Your task to perform on an android device: star an email in the gmail app Image 0: 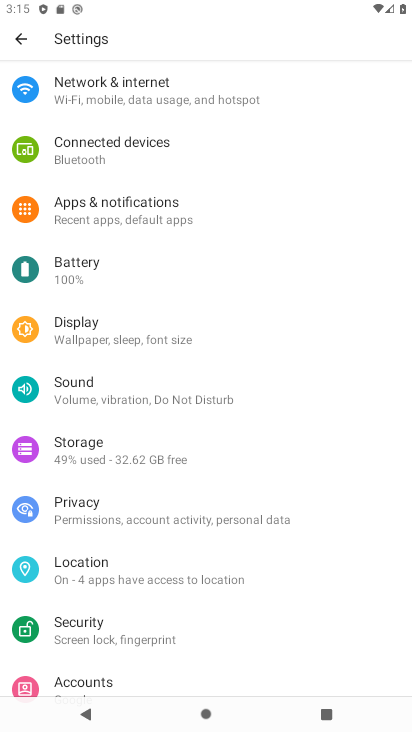
Step 0: drag from (266, 582) to (261, 284)
Your task to perform on an android device: star an email in the gmail app Image 1: 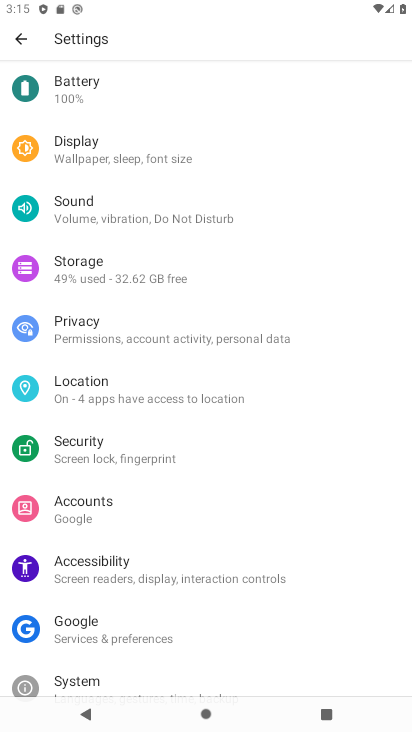
Step 1: press home button
Your task to perform on an android device: star an email in the gmail app Image 2: 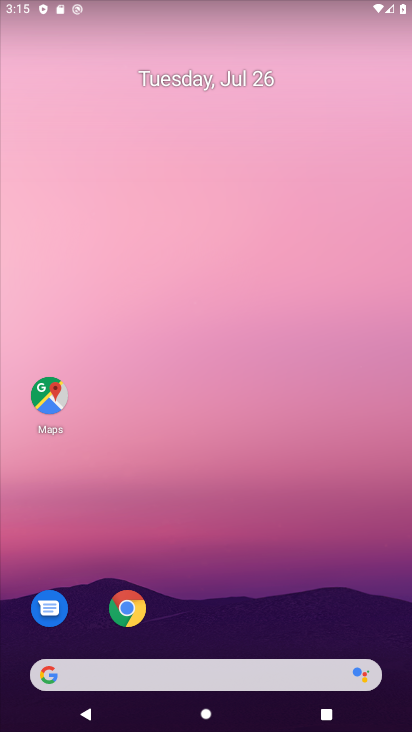
Step 2: drag from (388, 678) to (368, 164)
Your task to perform on an android device: star an email in the gmail app Image 3: 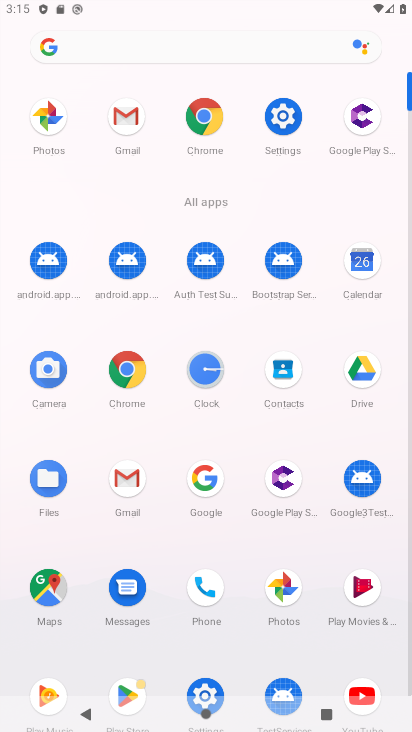
Step 3: click (120, 481)
Your task to perform on an android device: star an email in the gmail app Image 4: 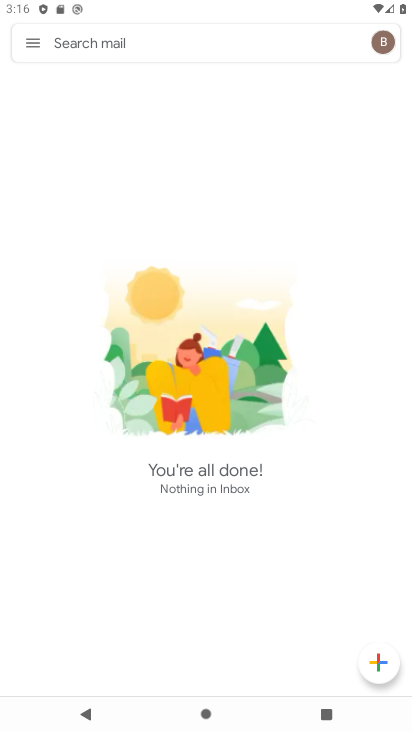
Step 4: click (39, 41)
Your task to perform on an android device: star an email in the gmail app Image 5: 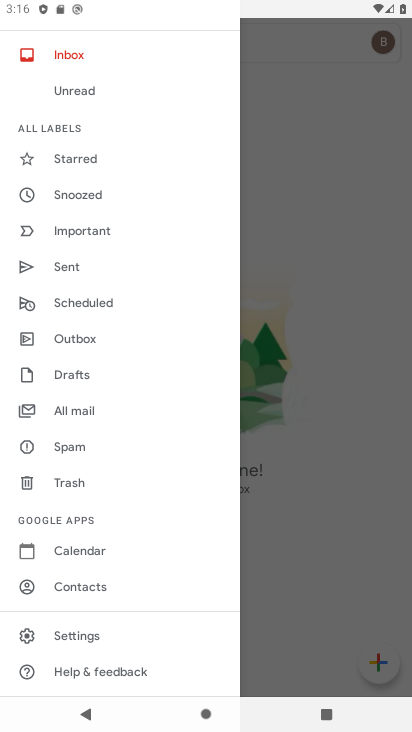
Step 5: click (367, 242)
Your task to perform on an android device: star an email in the gmail app Image 6: 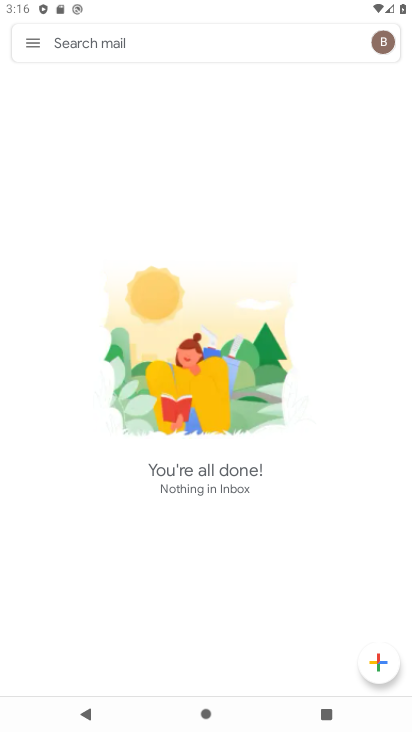
Step 6: task complete